Your task to perform on an android device: uninstall "ColorNote Notepad Notes" Image 0: 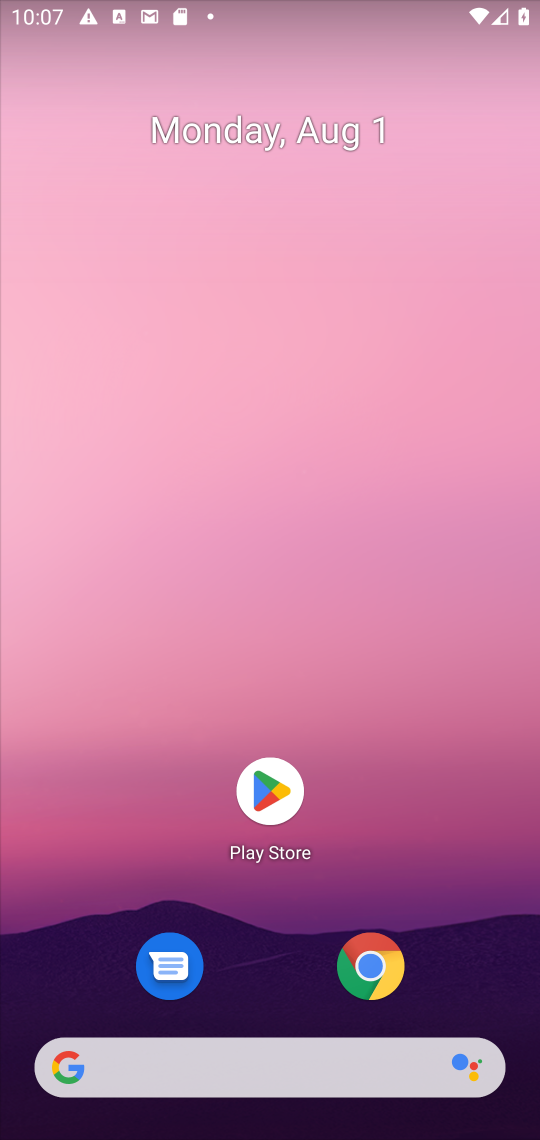
Step 0: drag from (525, 1076) to (413, 31)
Your task to perform on an android device: uninstall "ColorNote Notepad Notes" Image 1: 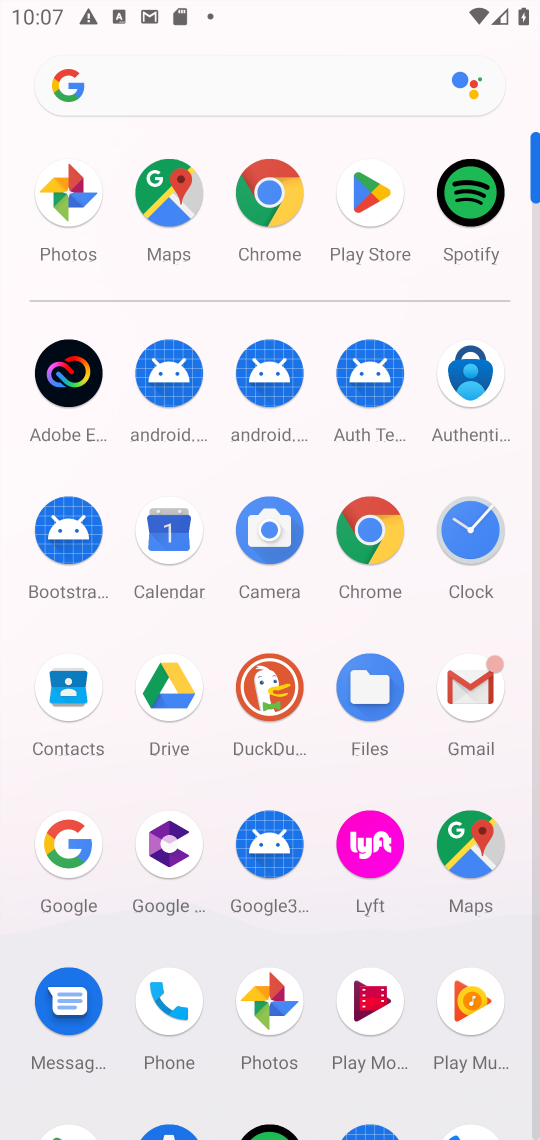
Step 1: task complete